Your task to perform on an android device: turn on priority inbox in the gmail app Image 0: 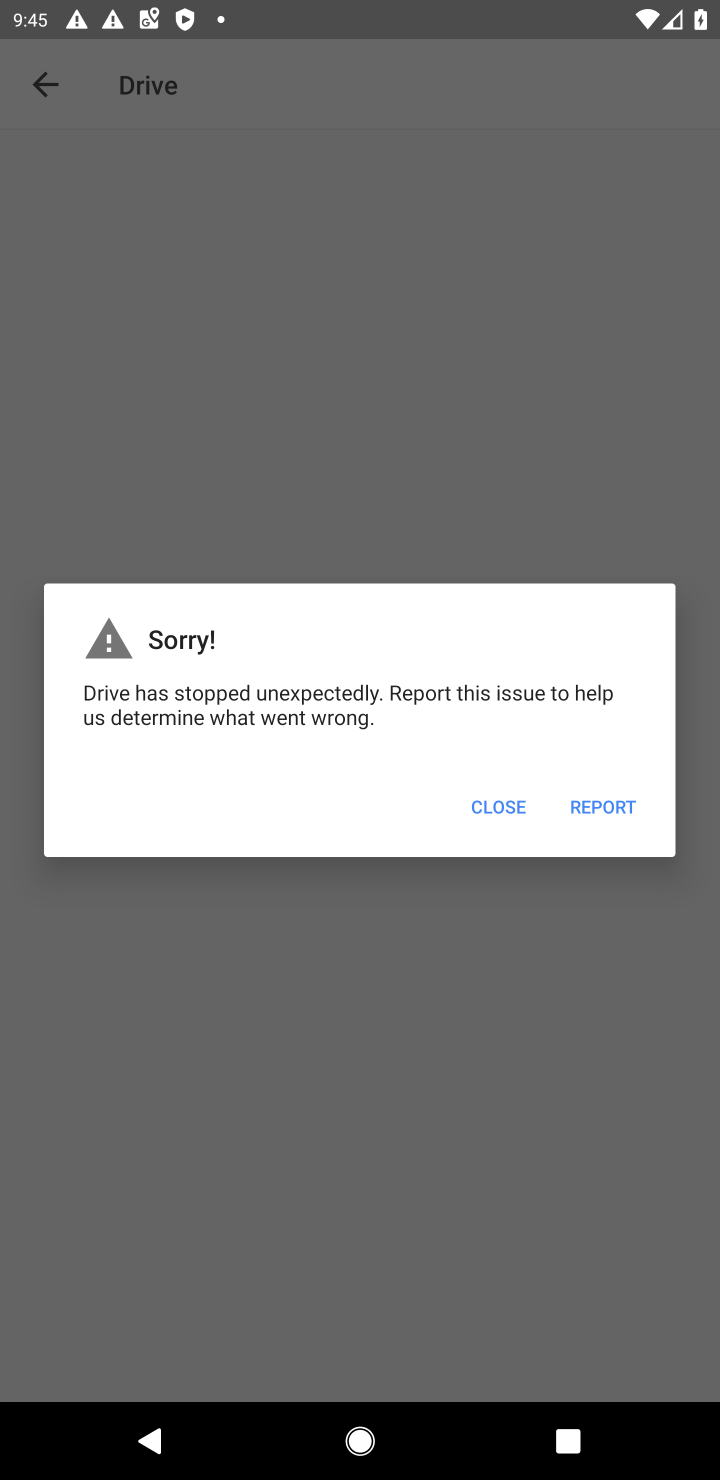
Step 0: press home button
Your task to perform on an android device: turn on priority inbox in the gmail app Image 1: 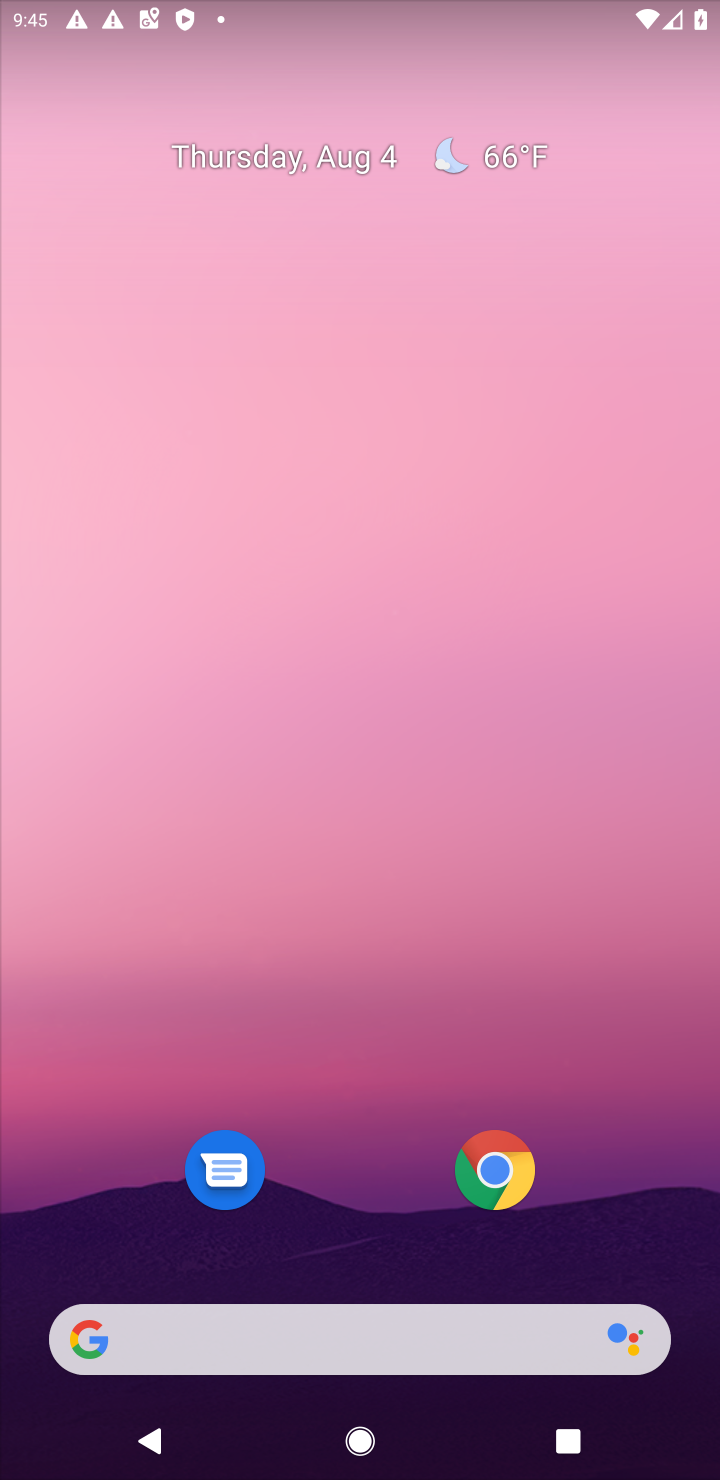
Step 1: drag from (392, 1049) to (394, 83)
Your task to perform on an android device: turn on priority inbox in the gmail app Image 2: 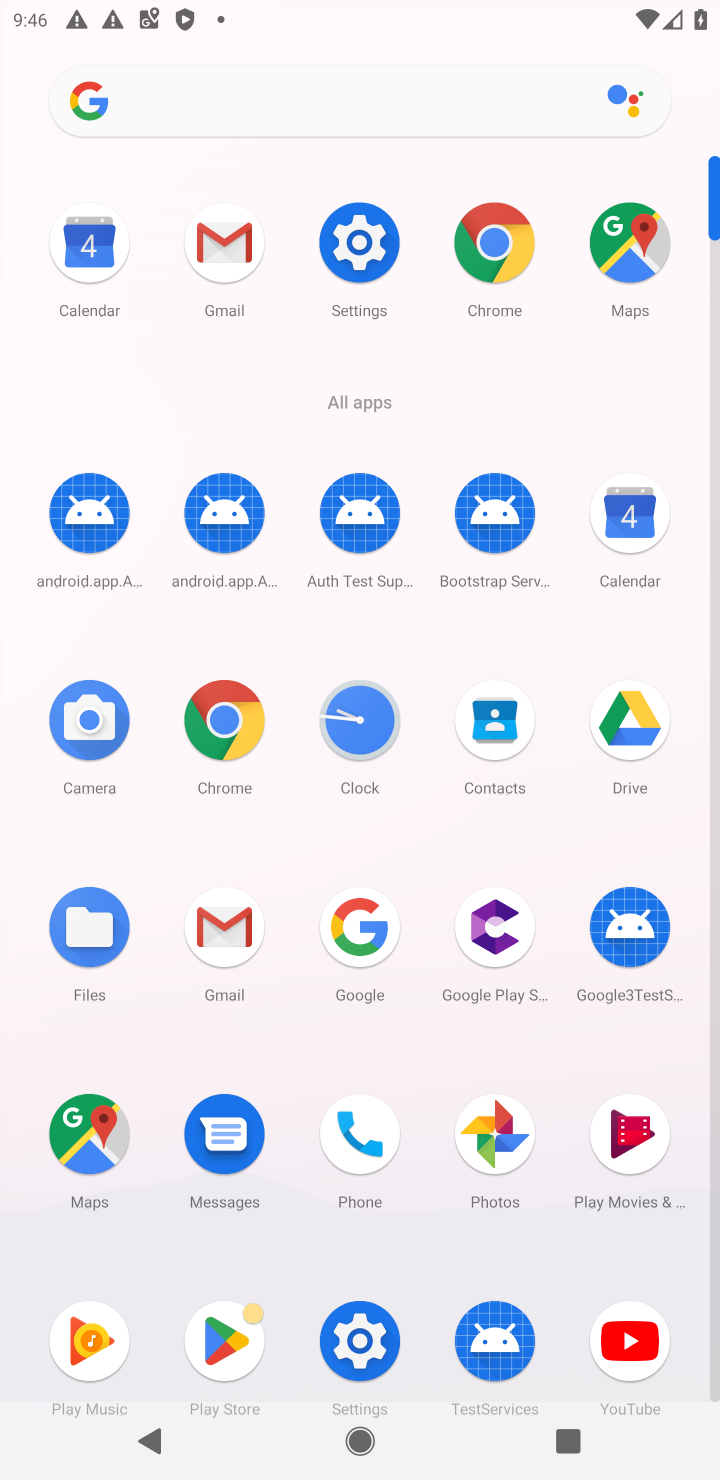
Step 2: click (226, 256)
Your task to perform on an android device: turn on priority inbox in the gmail app Image 3: 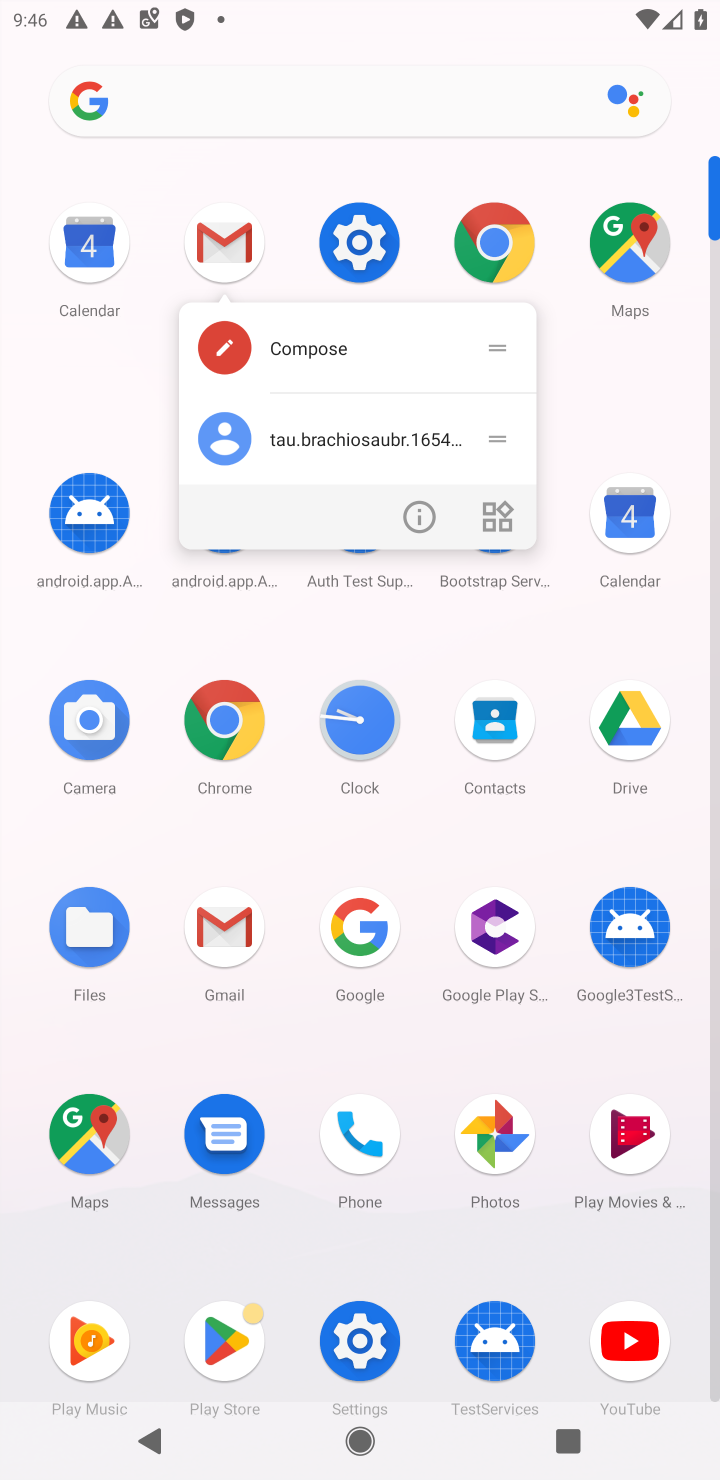
Step 3: click (230, 263)
Your task to perform on an android device: turn on priority inbox in the gmail app Image 4: 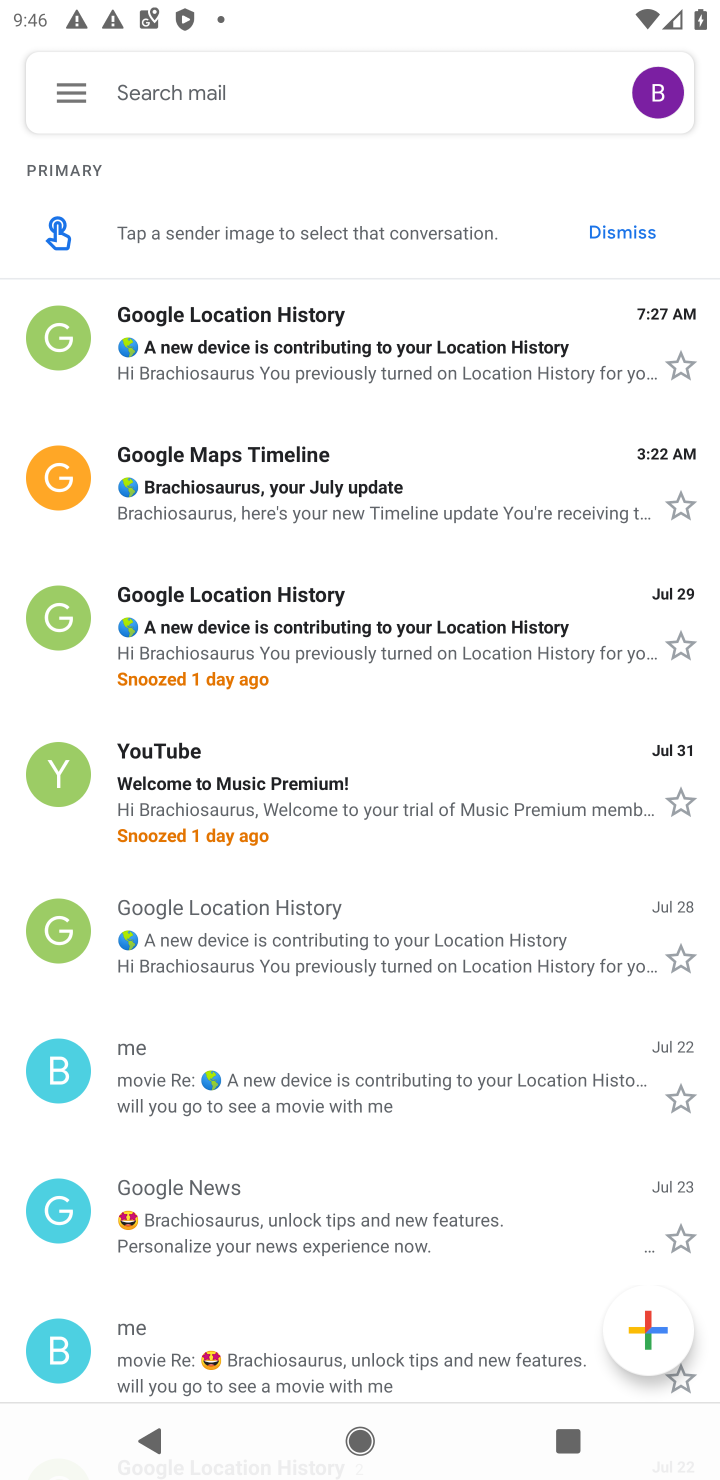
Step 4: click (75, 75)
Your task to perform on an android device: turn on priority inbox in the gmail app Image 5: 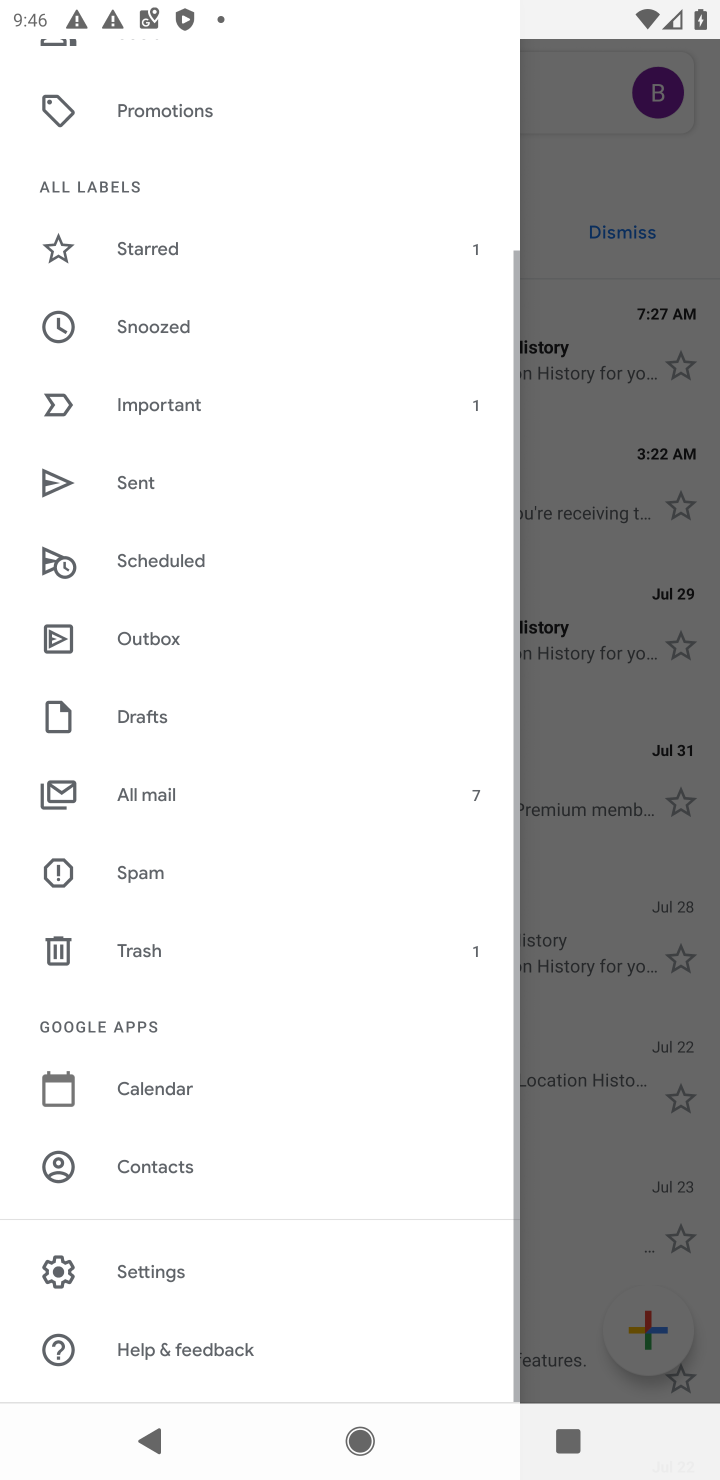
Step 5: click (157, 1254)
Your task to perform on an android device: turn on priority inbox in the gmail app Image 6: 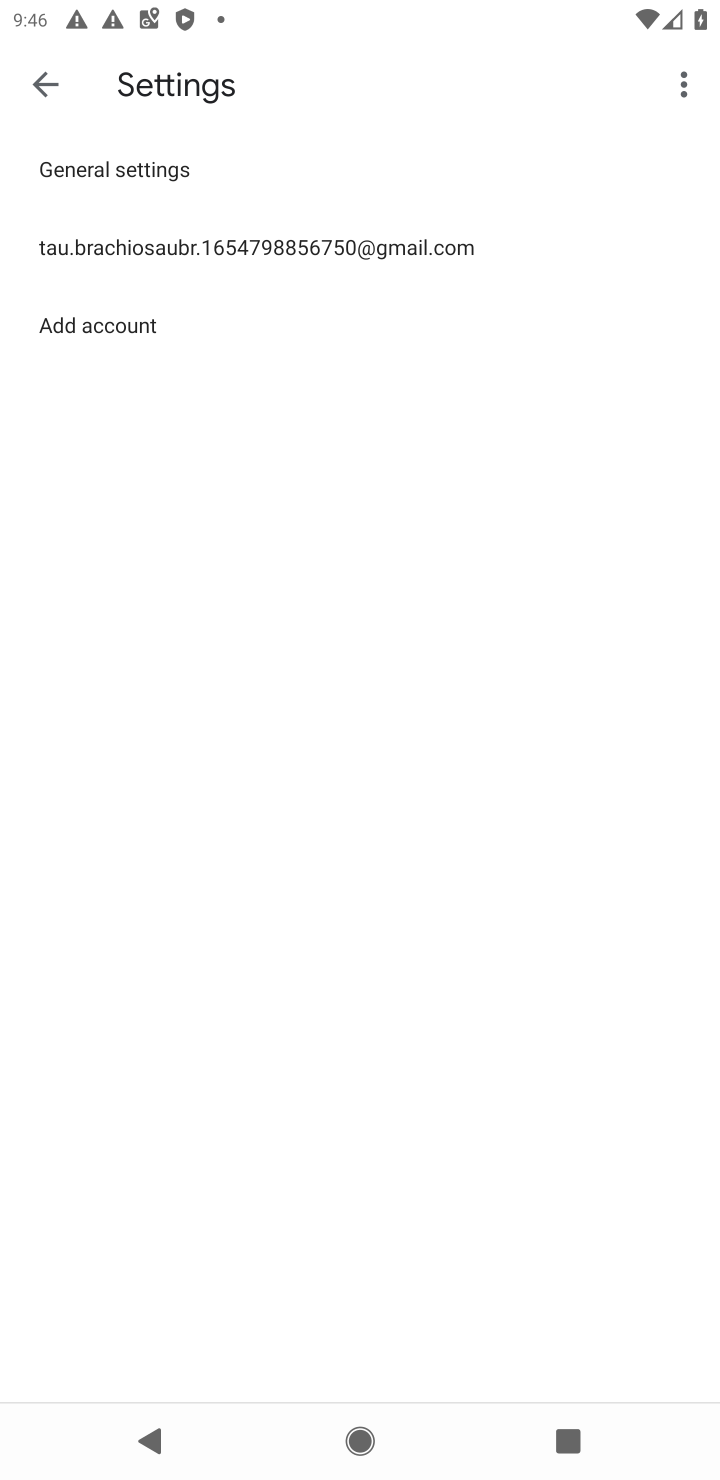
Step 6: click (98, 252)
Your task to perform on an android device: turn on priority inbox in the gmail app Image 7: 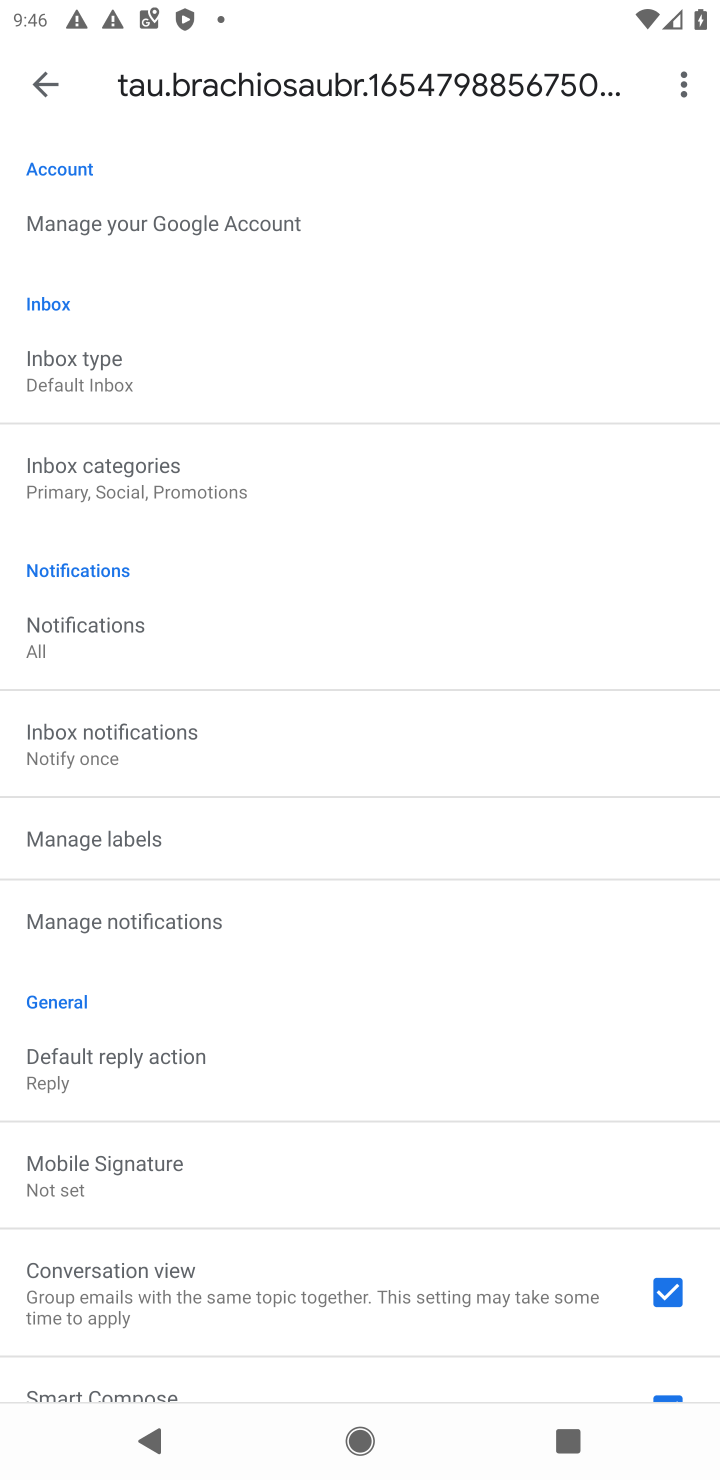
Step 7: click (109, 367)
Your task to perform on an android device: turn on priority inbox in the gmail app Image 8: 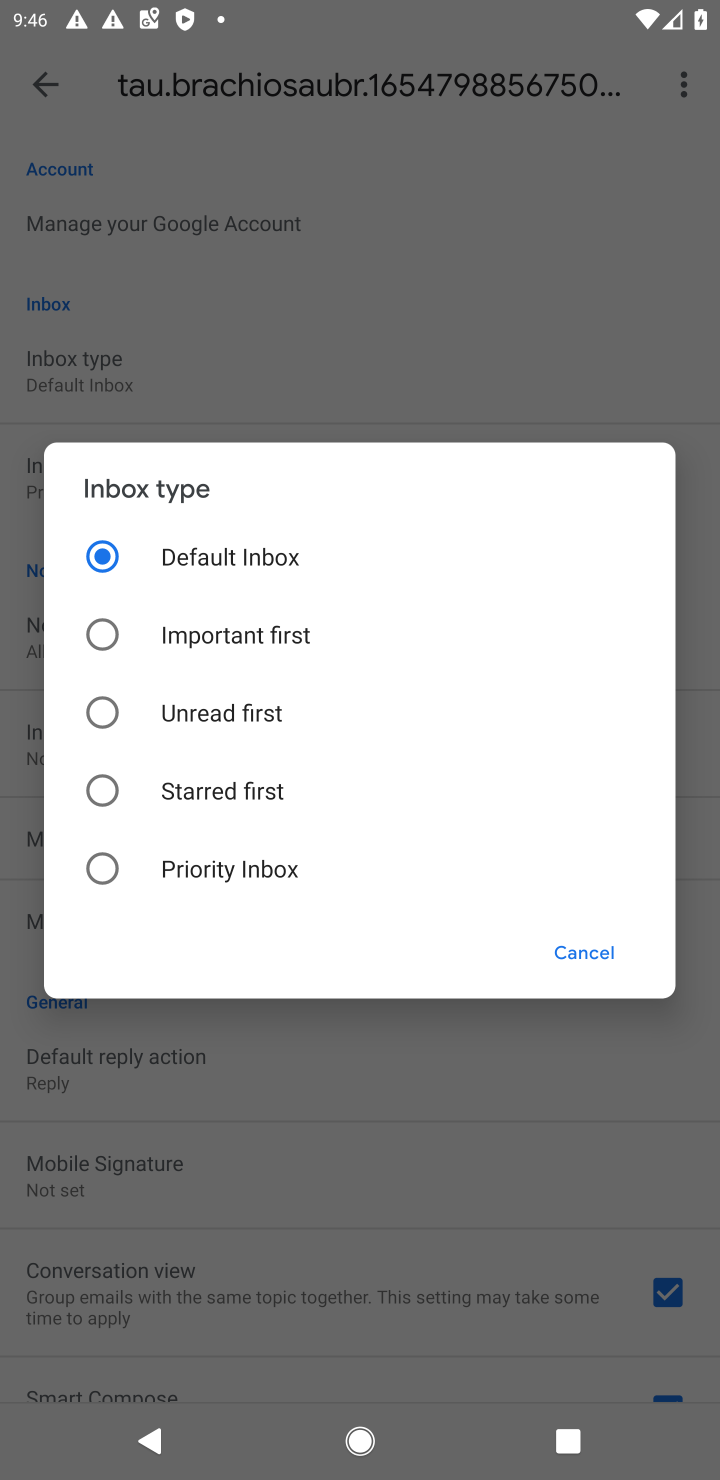
Step 8: click (253, 856)
Your task to perform on an android device: turn on priority inbox in the gmail app Image 9: 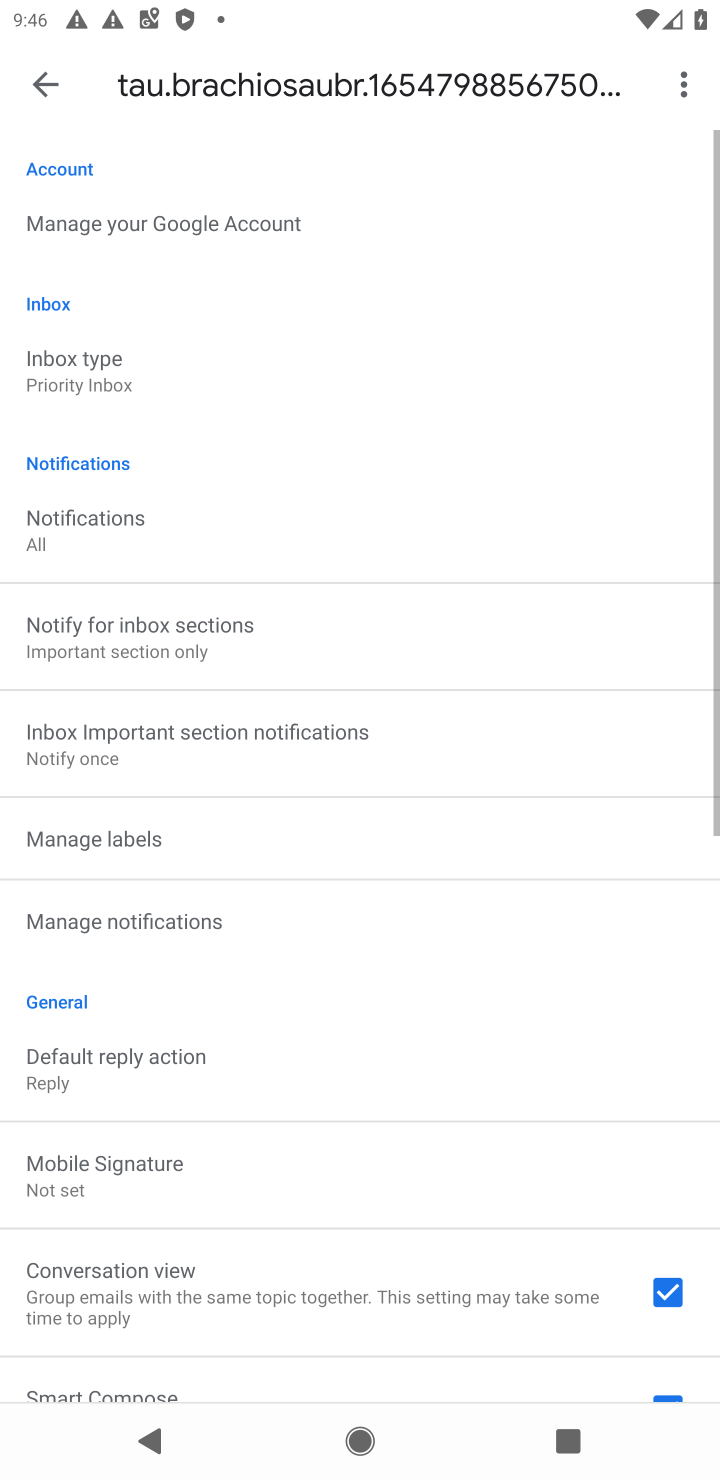
Step 9: task complete